Your task to perform on an android device: When is my next appointment? Image 0: 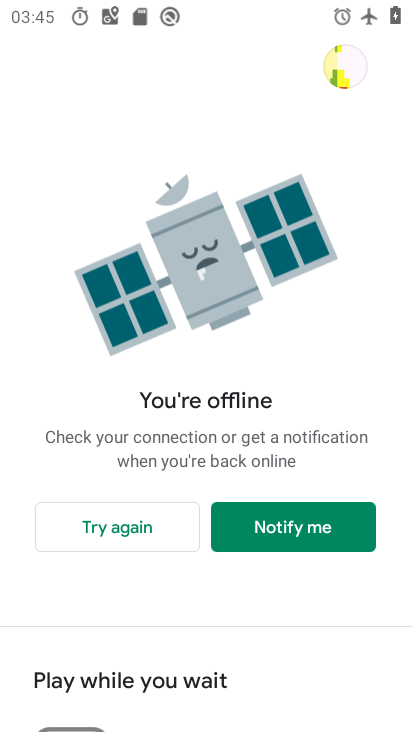
Step 0: press home button
Your task to perform on an android device: When is my next appointment? Image 1: 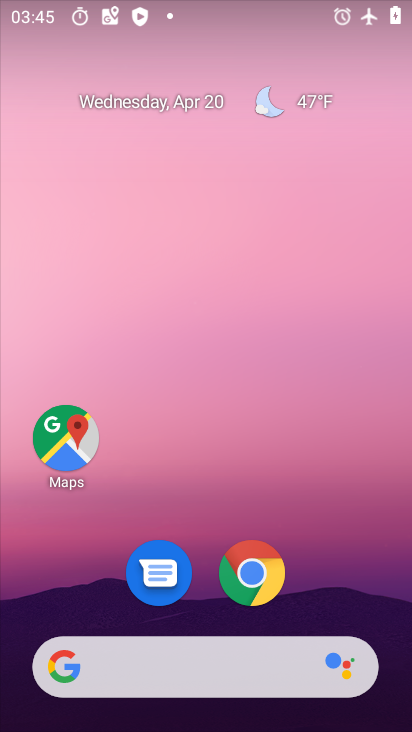
Step 1: drag from (197, 718) to (186, 174)
Your task to perform on an android device: When is my next appointment? Image 2: 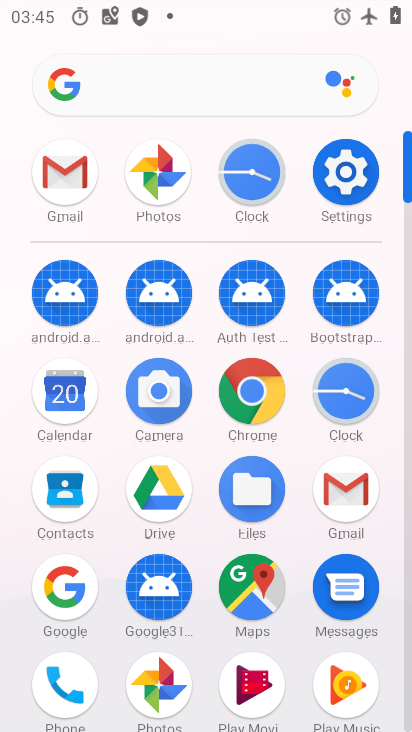
Step 2: click (63, 386)
Your task to perform on an android device: When is my next appointment? Image 3: 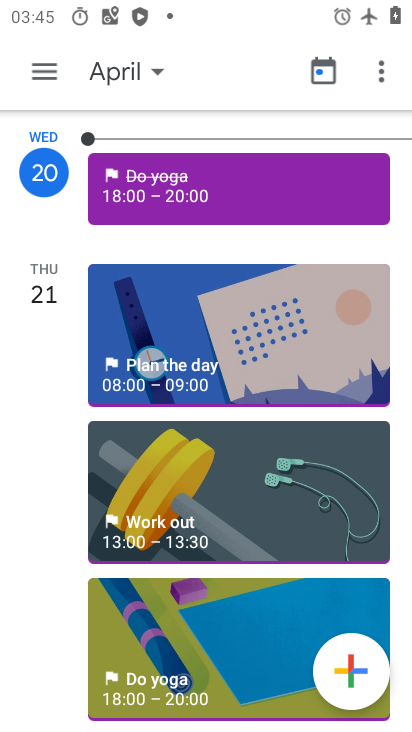
Step 3: click (119, 73)
Your task to perform on an android device: When is my next appointment? Image 4: 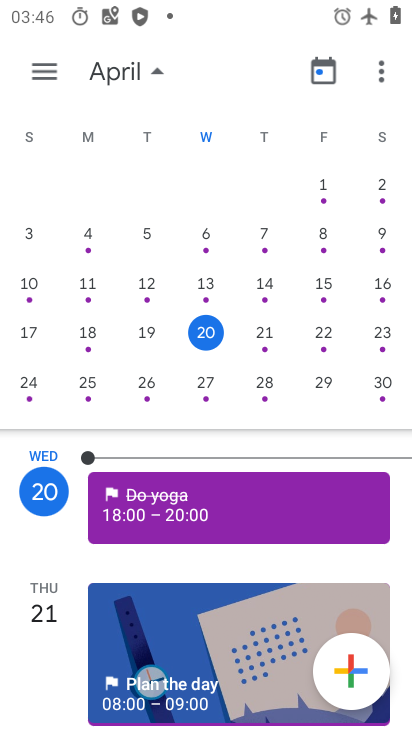
Step 4: click (263, 332)
Your task to perform on an android device: When is my next appointment? Image 5: 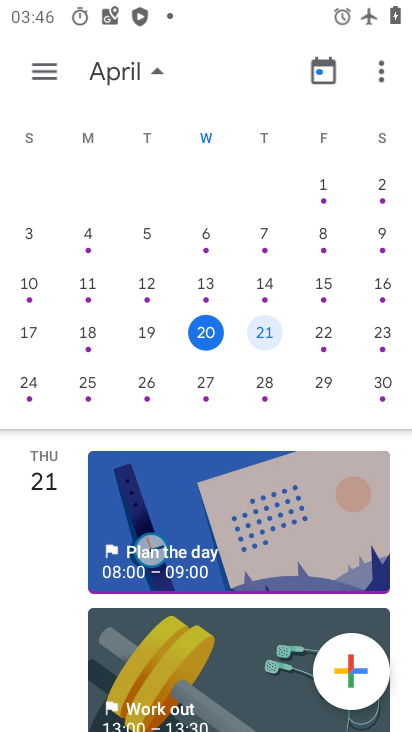
Step 5: task complete